Your task to perform on an android device: change your default location settings in chrome Image 0: 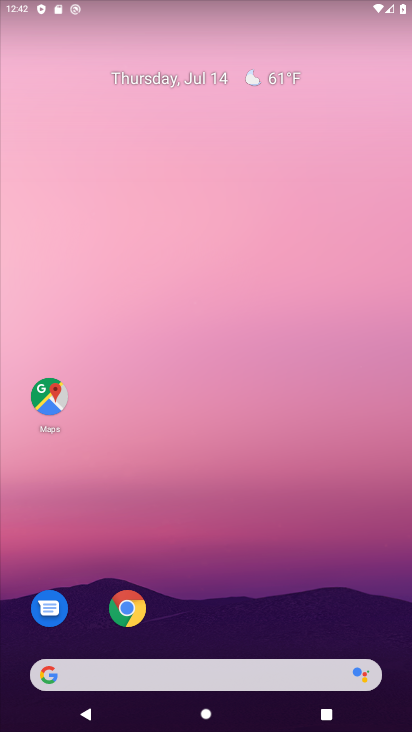
Step 0: drag from (379, 596) to (393, 224)
Your task to perform on an android device: change your default location settings in chrome Image 1: 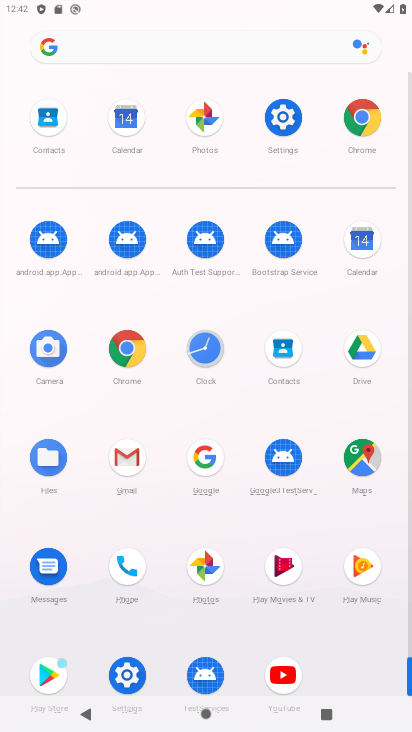
Step 1: click (136, 350)
Your task to perform on an android device: change your default location settings in chrome Image 2: 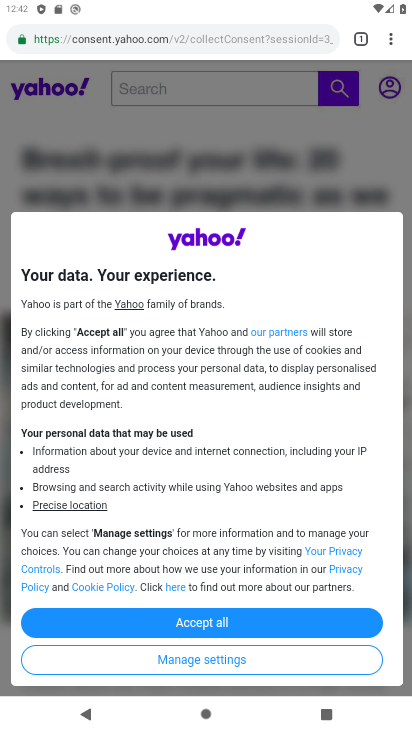
Step 2: click (391, 41)
Your task to perform on an android device: change your default location settings in chrome Image 3: 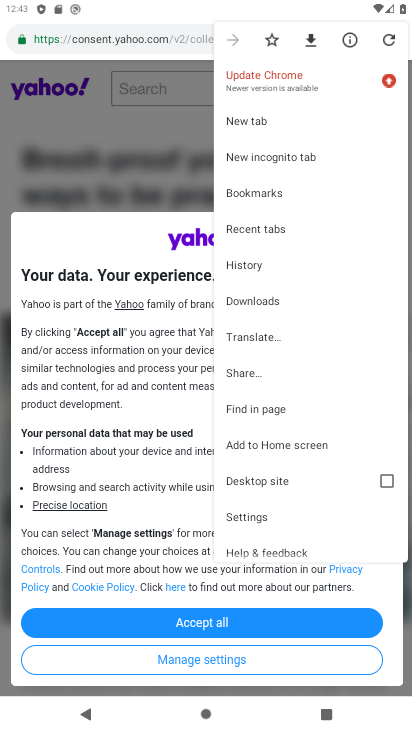
Step 3: click (266, 515)
Your task to perform on an android device: change your default location settings in chrome Image 4: 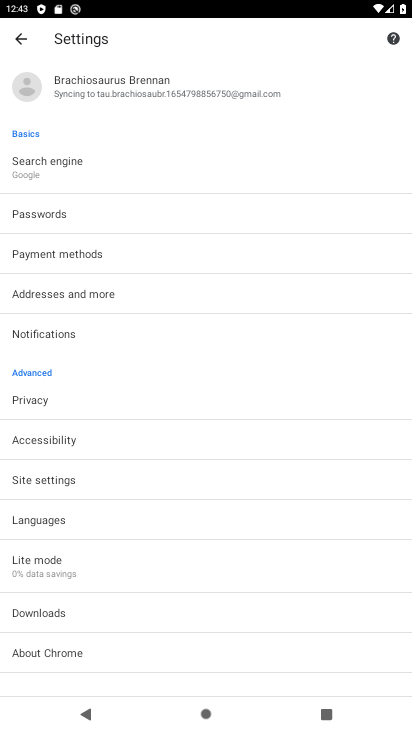
Step 4: drag from (275, 574) to (302, 449)
Your task to perform on an android device: change your default location settings in chrome Image 5: 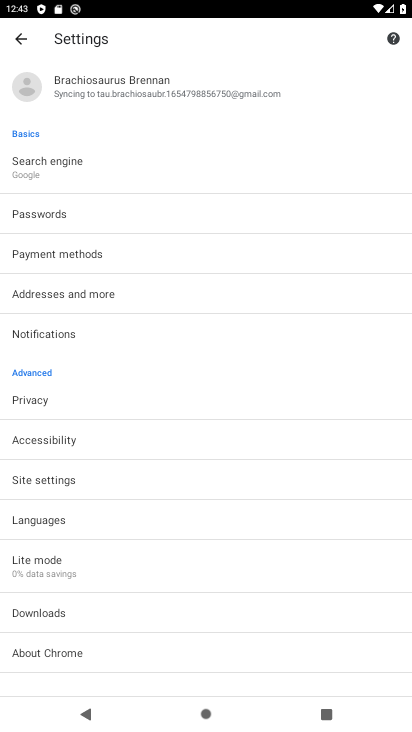
Step 5: click (110, 471)
Your task to perform on an android device: change your default location settings in chrome Image 6: 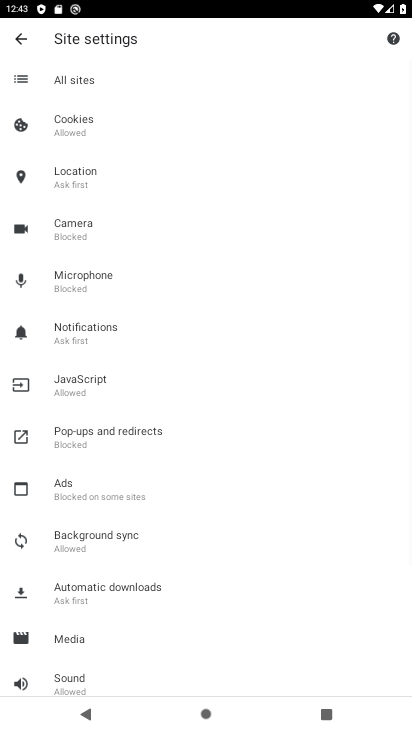
Step 6: drag from (232, 494) to (248, 398)
Your task to perform on an android device: change your default location settings in chrome Image 7: 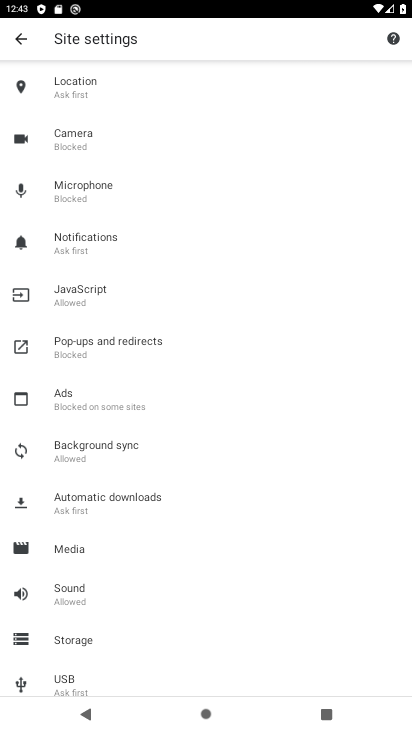
Step 7: drag from (265, 538) to (271, 427)
Your task to perform on an android device: change your default location settings in chrome Image 8: 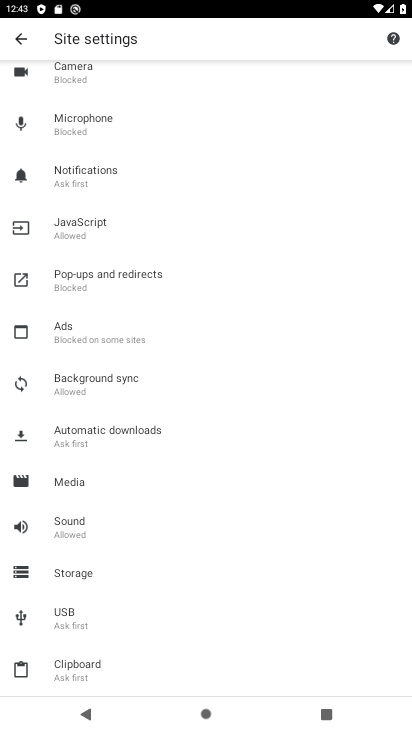
Step 8: drag from (286, 543) to (299, 439)
Your task to perform on an android device: change your default location settings in chrome Image 9: 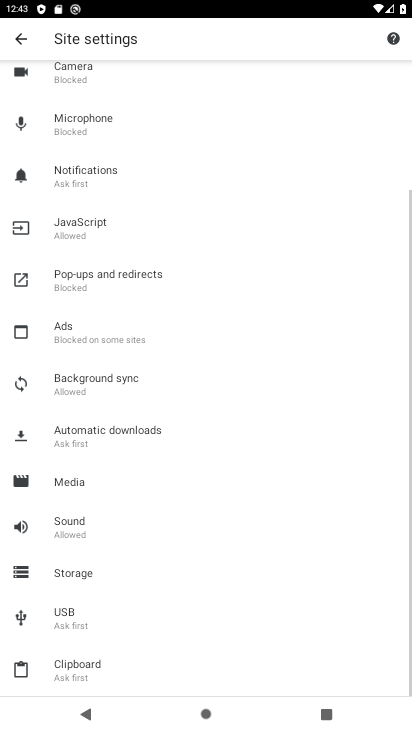
Step 9: drag from (321, 315) to (313, 403)
Your task to perform on an android device: change your default location settings in chrome Image 10: 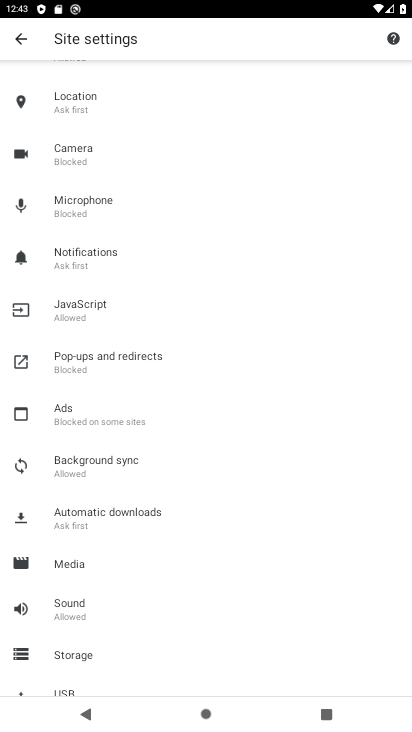
Step 10: drag from (320, 289) to (313, 382)
Your task to perform on an android device: change your default location settings in chrome Image 11: 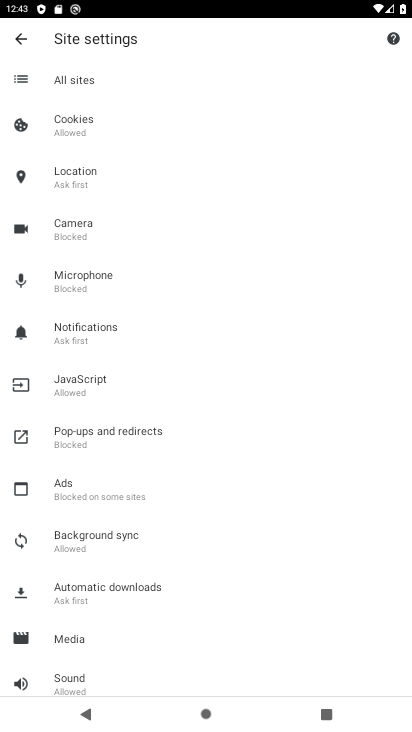
Step 11: drag from (317, 282) to (317, 391)
Your task to perform on an android device: change your default location settings in chrome Image 12: 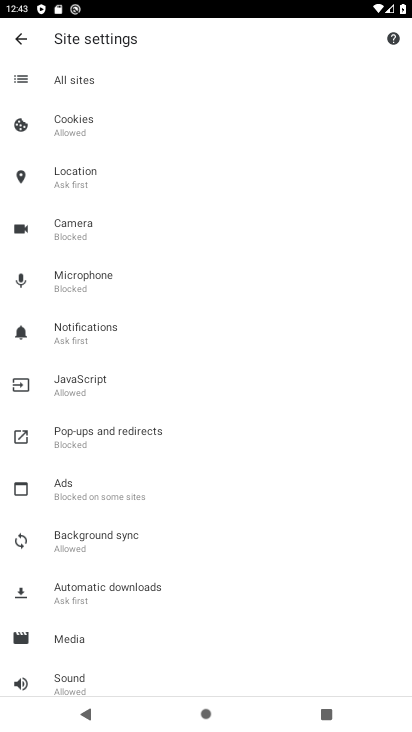
Step 12: click (83, 175)
Your task to perform on an android device: change your default location settings in chrome Image 13: 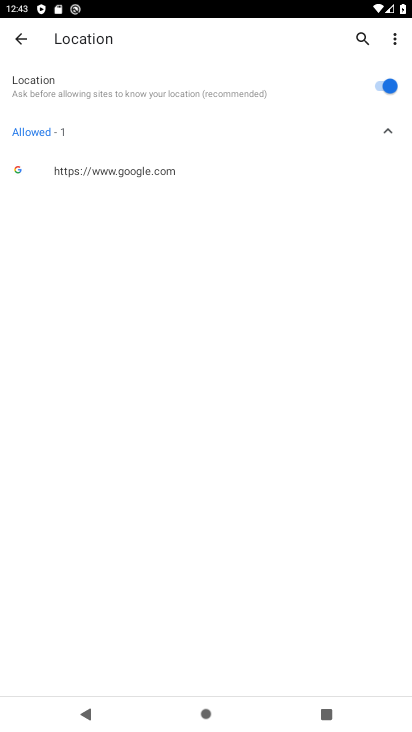
Step 13: click (387, 83)
Your task to perform on an android device: change your default location settings in chrome Image 14: 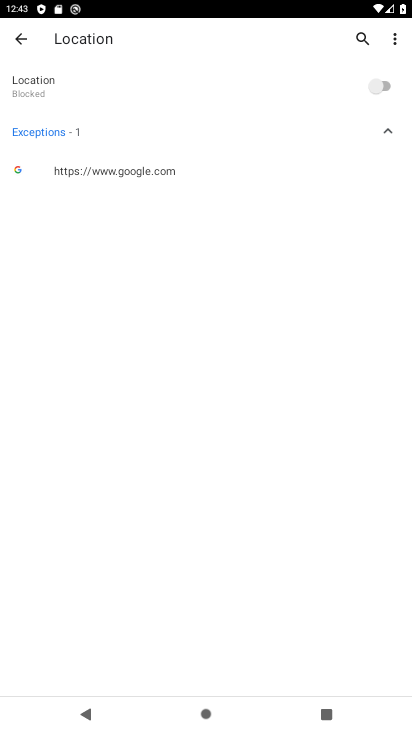
Step 14: task complete